Your task to perform on an android device: turn off wifi Image 0: 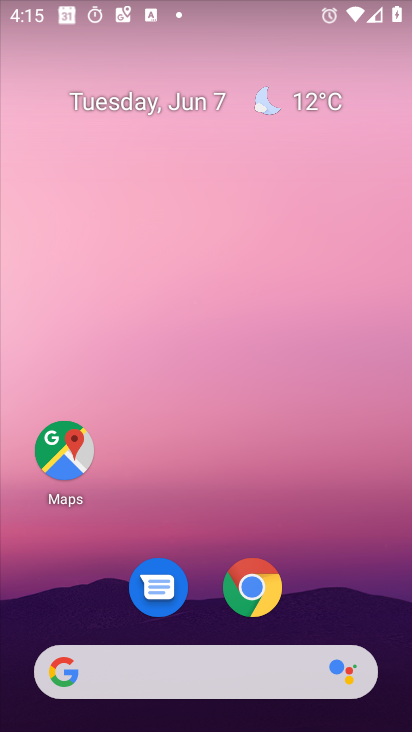
Step 0: drag from (290, 598) to (246, 28)
Your task to perform on an android device: turn off wifi Image 1: 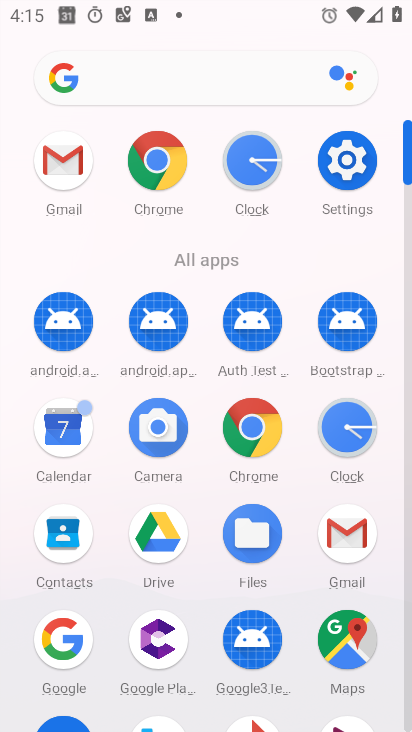
Step 1: click (358, 174)
Your task to perform on an android device: turn off wifi Image 2: 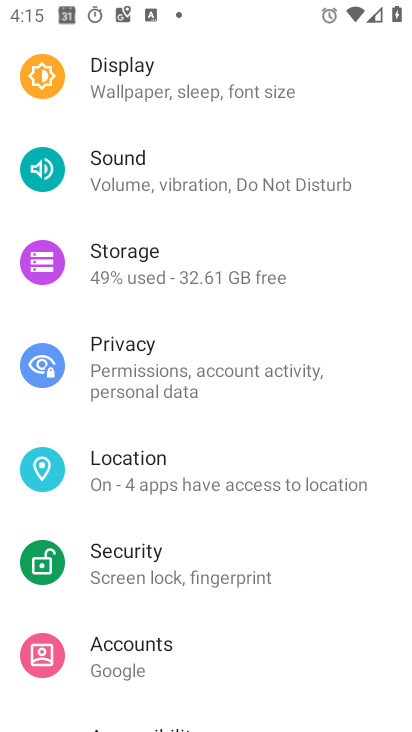
Step 2: drag from (235, 267) to (291, 694)
Your task to perform on an android device: turn off wifi Image 3: 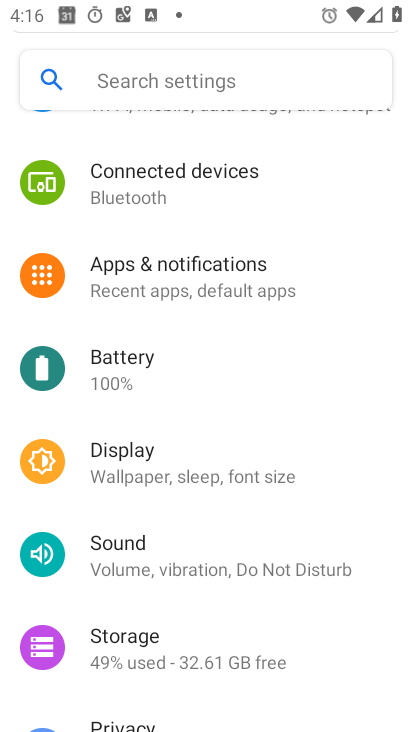
Step 3: drag from (320, 311) to (305, 725)
Your task to perform on an android device: turn off wifi Image 4: 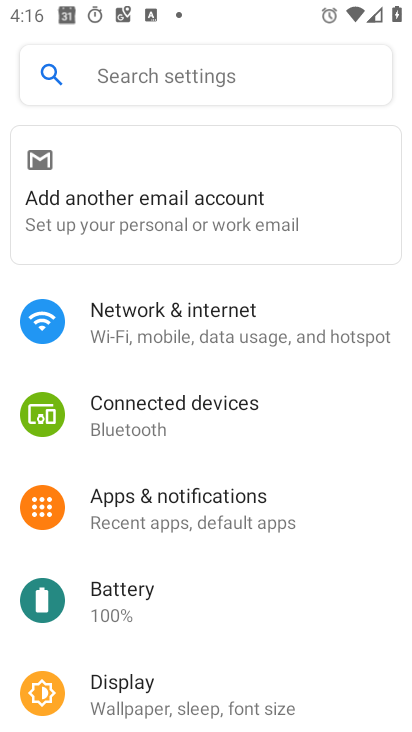
Step 4: click (306, 326)
Your task to perform on an android device: turn off wifi Image 5: 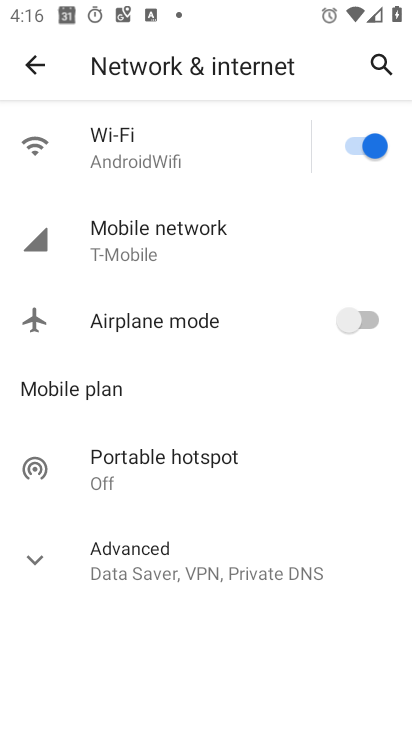
Step 5: click (355, 142)
Your task to perform on an android device: turn off wifi Image 6: 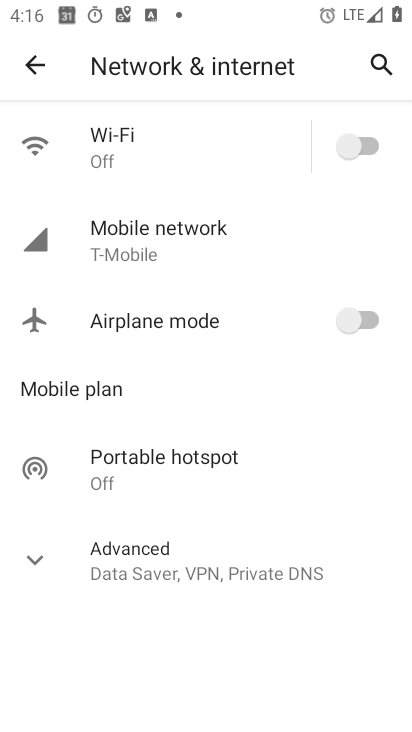
Step 6: task complete